Your task to perform on an android device: turn on location history Image 0: 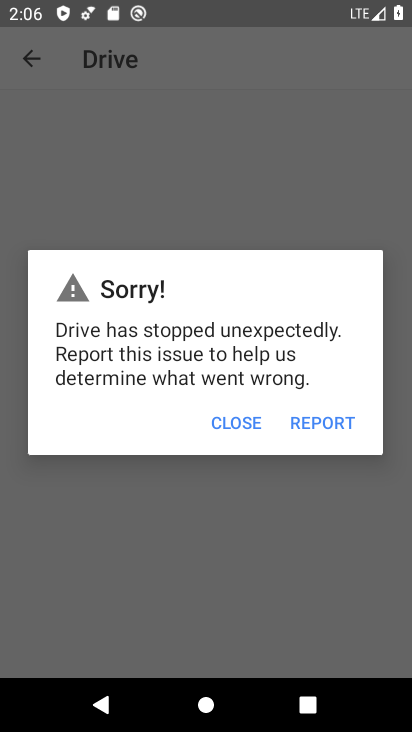
Step 0: press home button
Your task to perform on an android device: turn on location history Image 1: 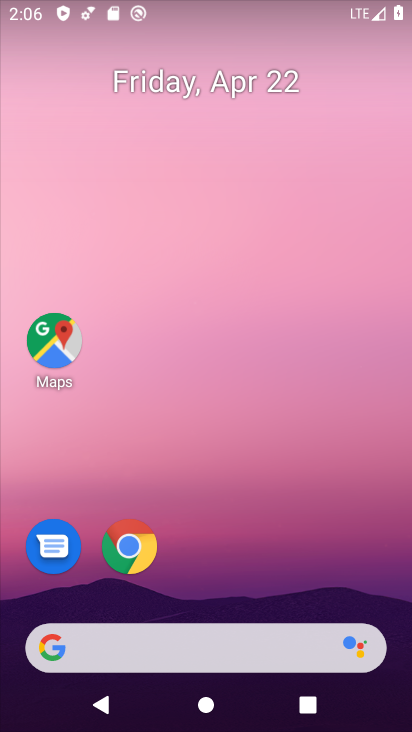
Step 1: drag from (235, 582) to (273, 149)
Your task to perform on an android device: turn on location history Image 2: 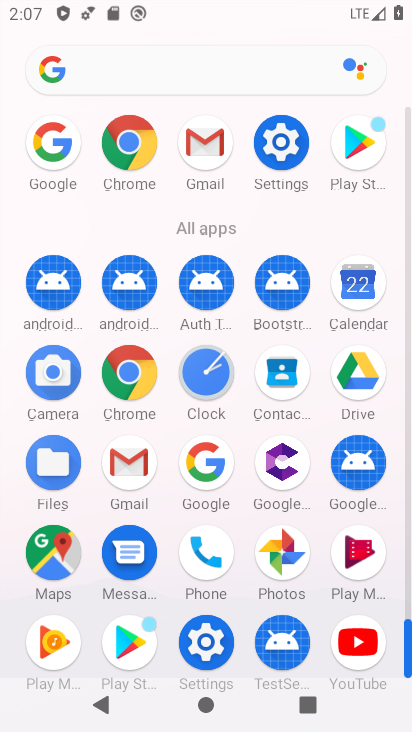
Step 2: click (285, 153)
Your task to perform on an android device: turn on location history Image 3: 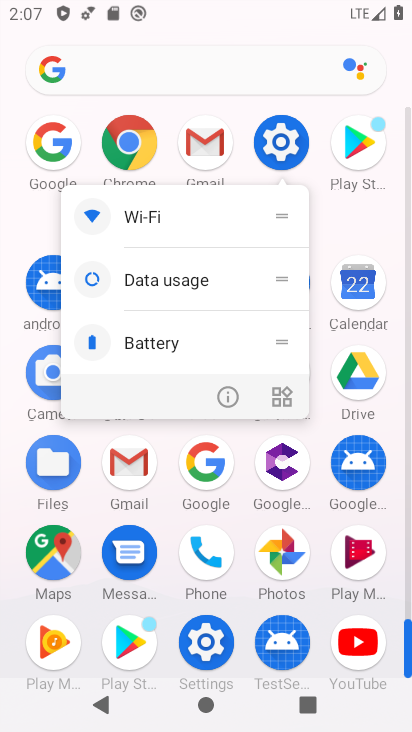
Step 3: click (282, 156)
Your task to perform on an android device: turn on location history Image 4: 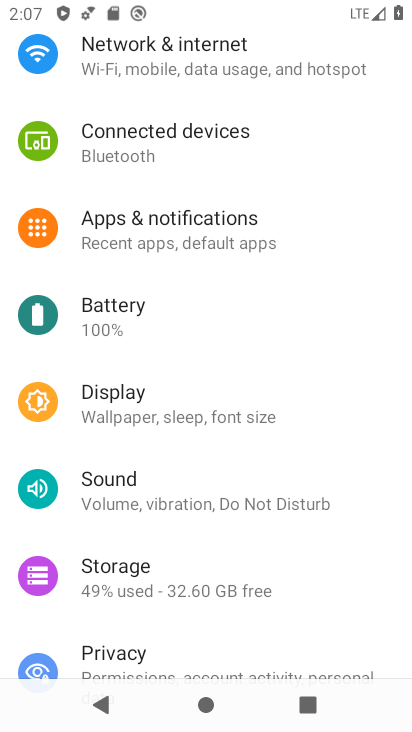
Step 4: drag from (165, 520) to (191, 244)
Your task to perform on an android device: turn on location history Image 5: 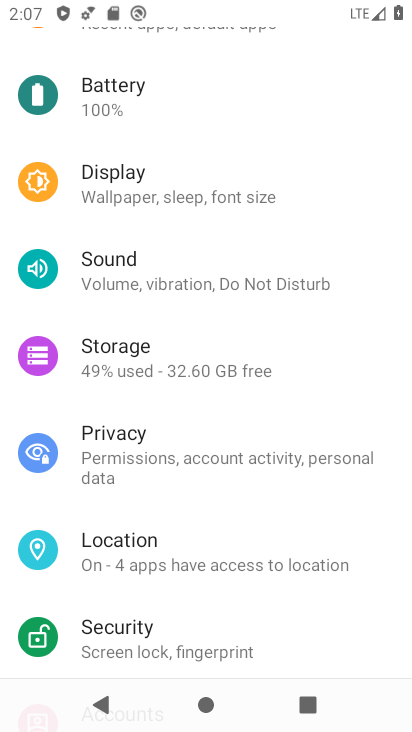
Step 5: click (158, 554)
Your task to perform on an android device: turn on location history Image 6: 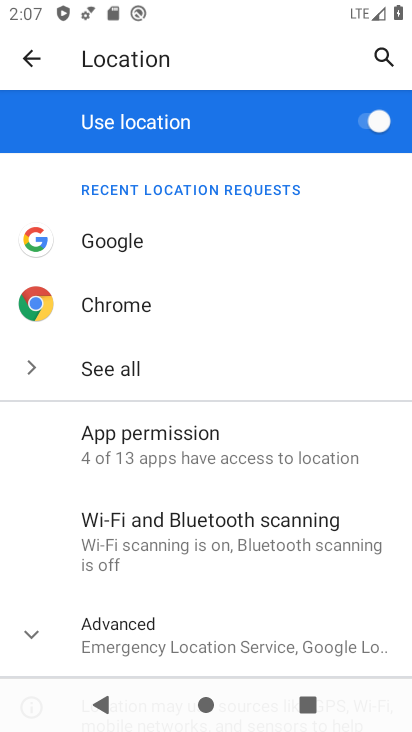
Step 6: click (218, 634)
Your task to perform on an android device: turn on location history Image 7: 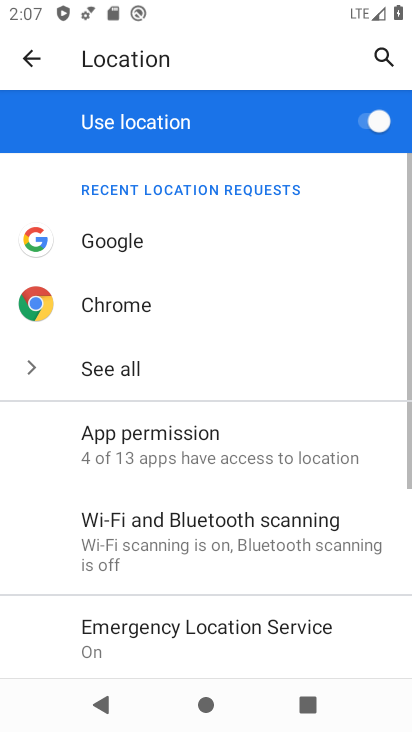
Step 7: drag from (242, 483) to (308, 219)
Your task to perform on an android device: turn on location history Image 8: 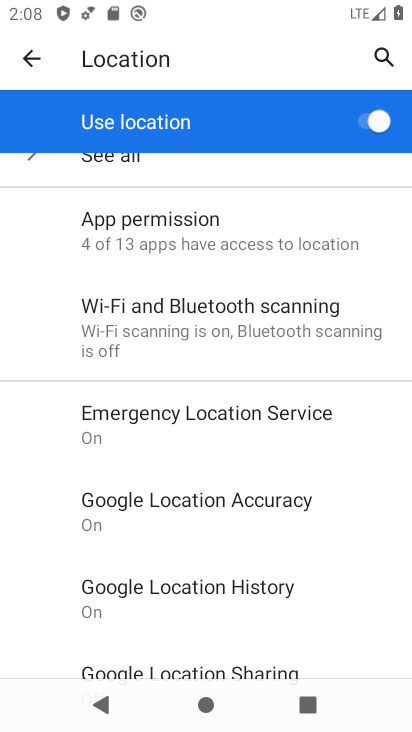
Step 8: click (267, 600)
Your task to perform on an android device: turn on location history Image 9: 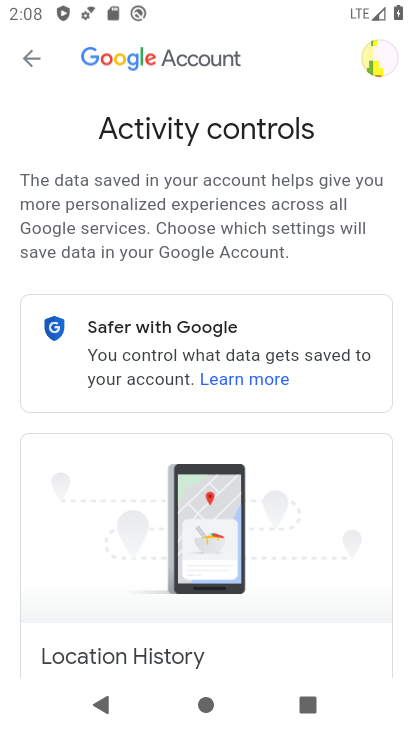
Step 9: task complete